Your task to perform on an android device: install app "Adobe Acrobat Reader: Edit PDF" Image 0: 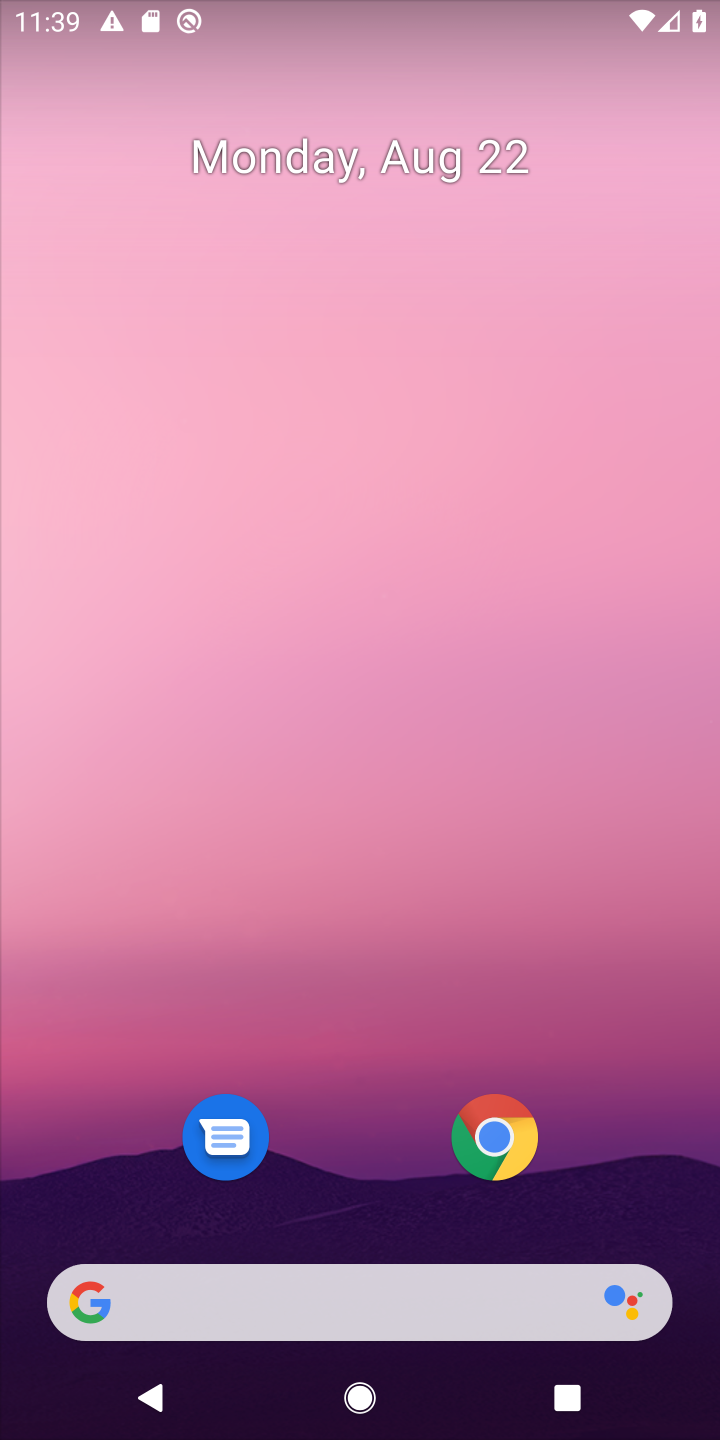
Step 0: drag from (302, 916) to (317, 65)
Your task to perform on an android device: install app "Adobe Acrobat Reader: Edit PDF" Image 1: 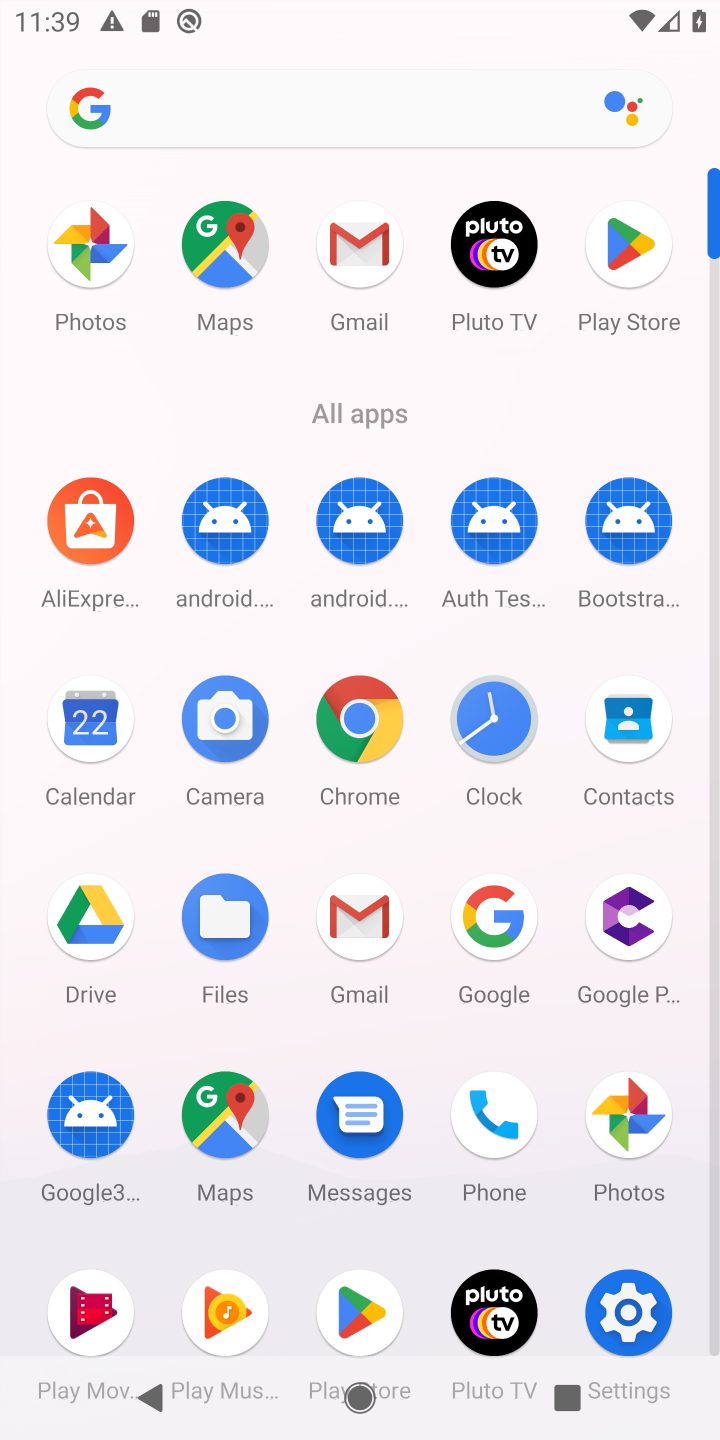
Step 1: click (612, 238)
Your task to perform on an android device: install app "Adobe Acrobat Reader: Edit PDF" Image 2: 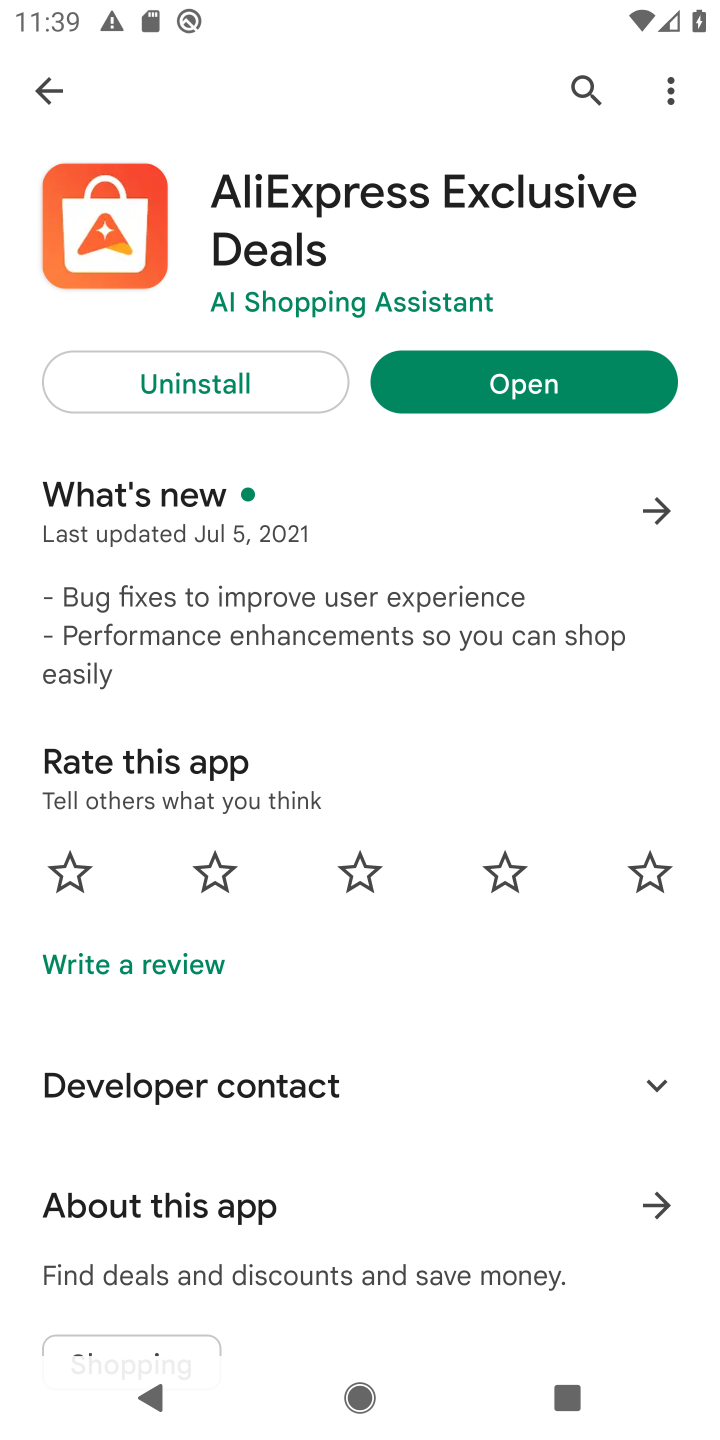
Step 2: click (44, 83)
Your task to perform on an android device: install app "Adobe Acrobat Reader: Edit PDF" Image 3: 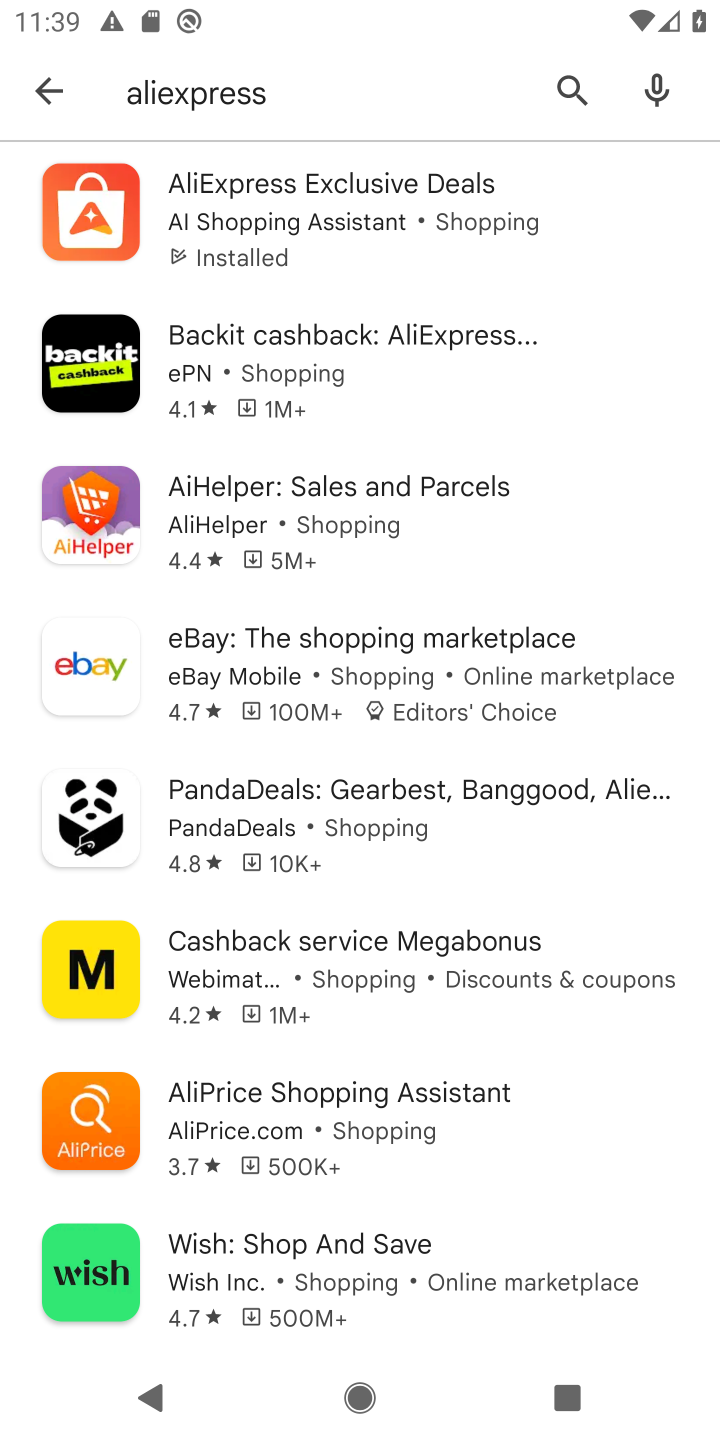
Step 3: click (35, 87)
Your task to perform on an android device: install app "Adobe Acrobat Reader: Edit PDF" Image 4: 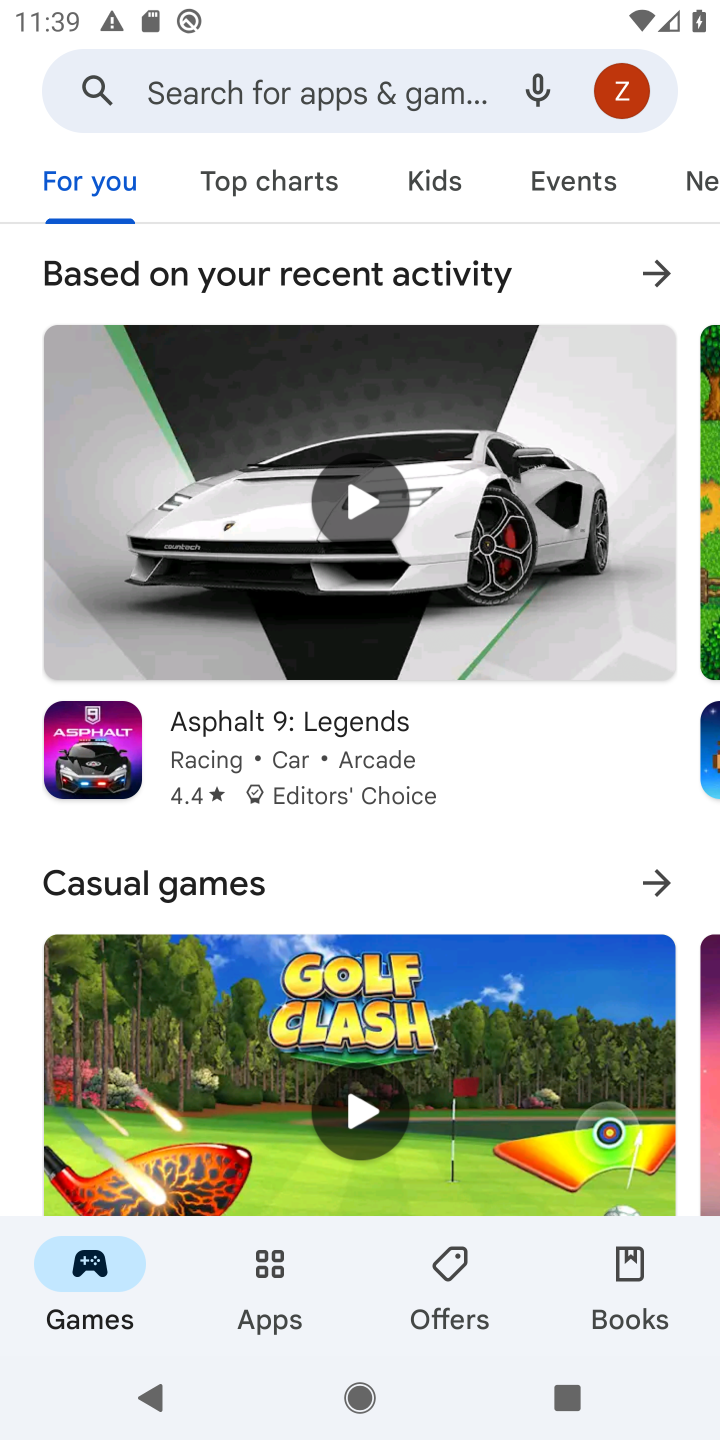
Step 4: click (243, 85)
Your task to perform on an android device: install app "Adobe Acrobat Reader: Edit PDF" Image 5: 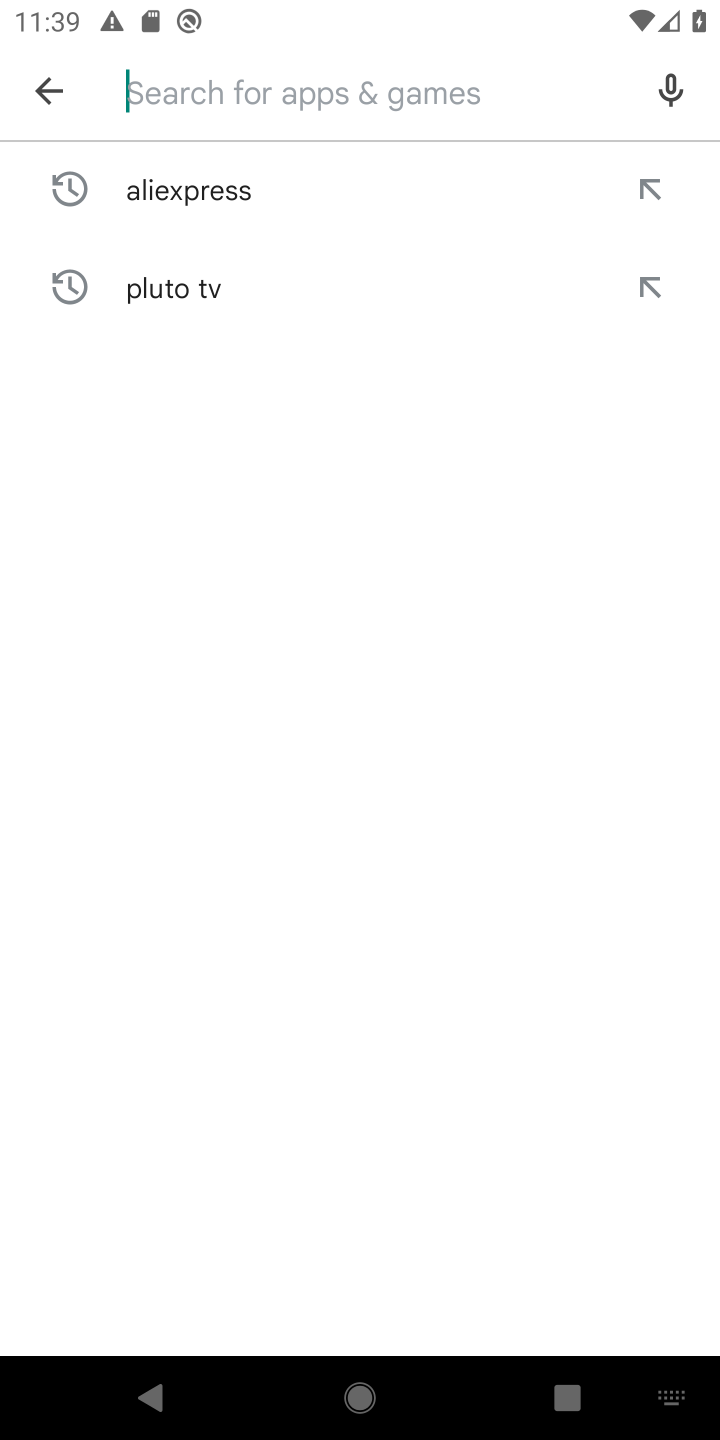
Step 5: type "Adobe Acrobat Reader: Edit PDF"
Your task to perform on an android device: install app "Adobe Acrobat Reader: Edit PDF" Image 6: 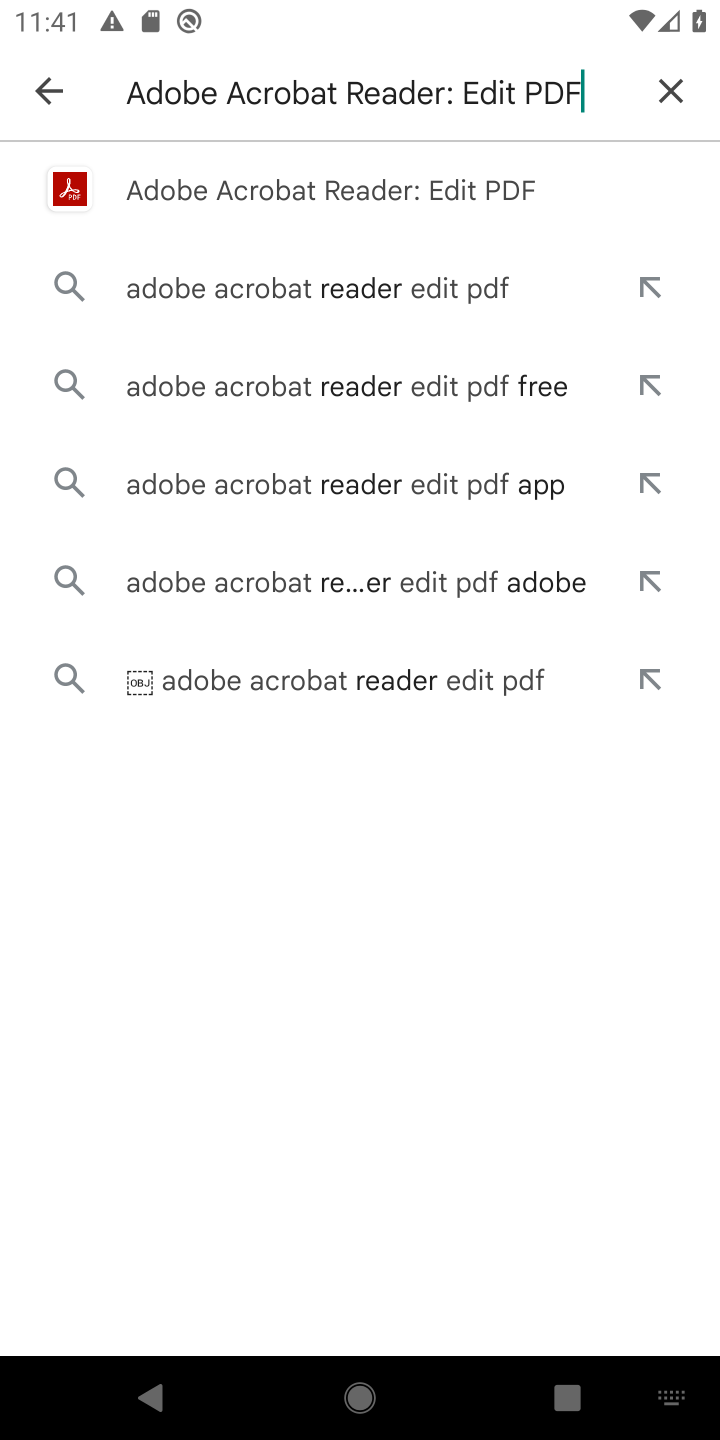
Step 6: click (415, 186)
Your task to perform on an android device: install app "Adobe Acrobat Reader: Edit PDF" Image 7: 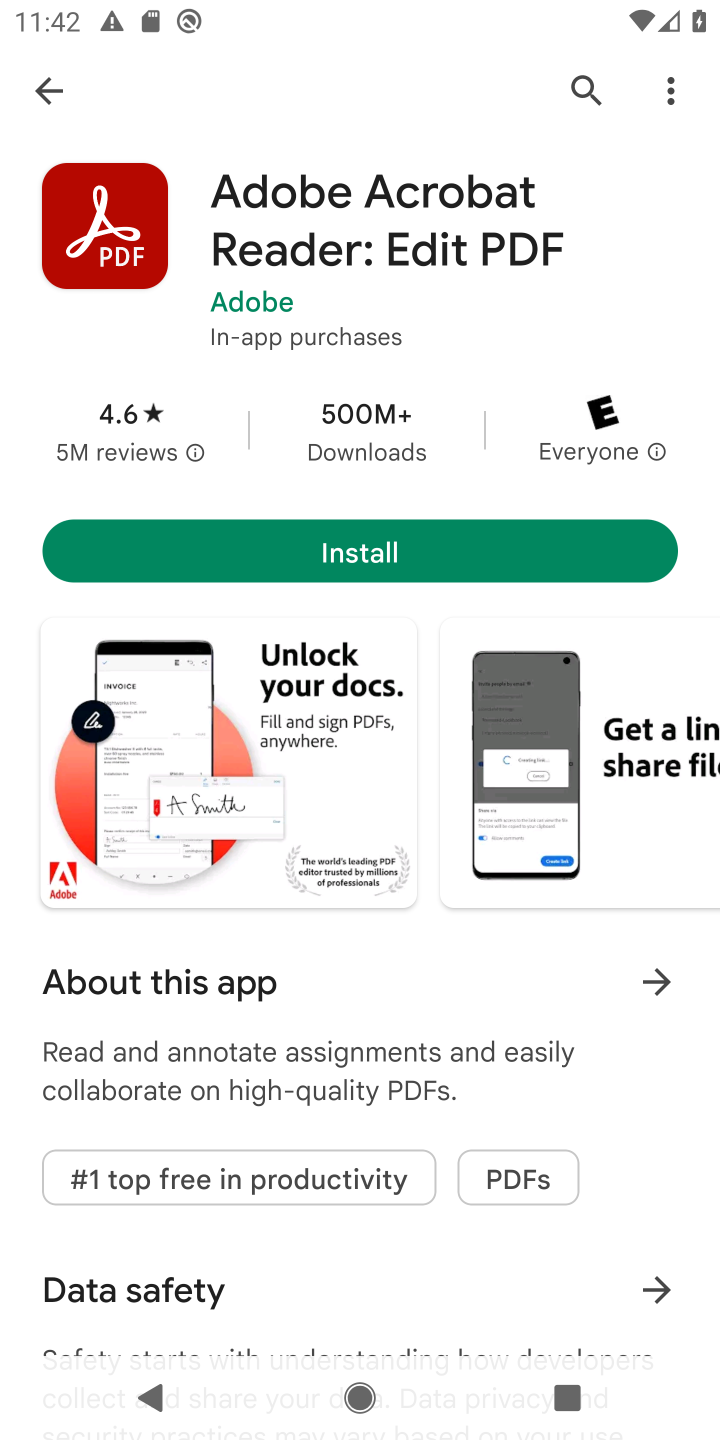
Step 7: click (349, 561)
Your task to perform on an android device: install app "Adobe Acrobat Reader: Edit PDF" Image 8: 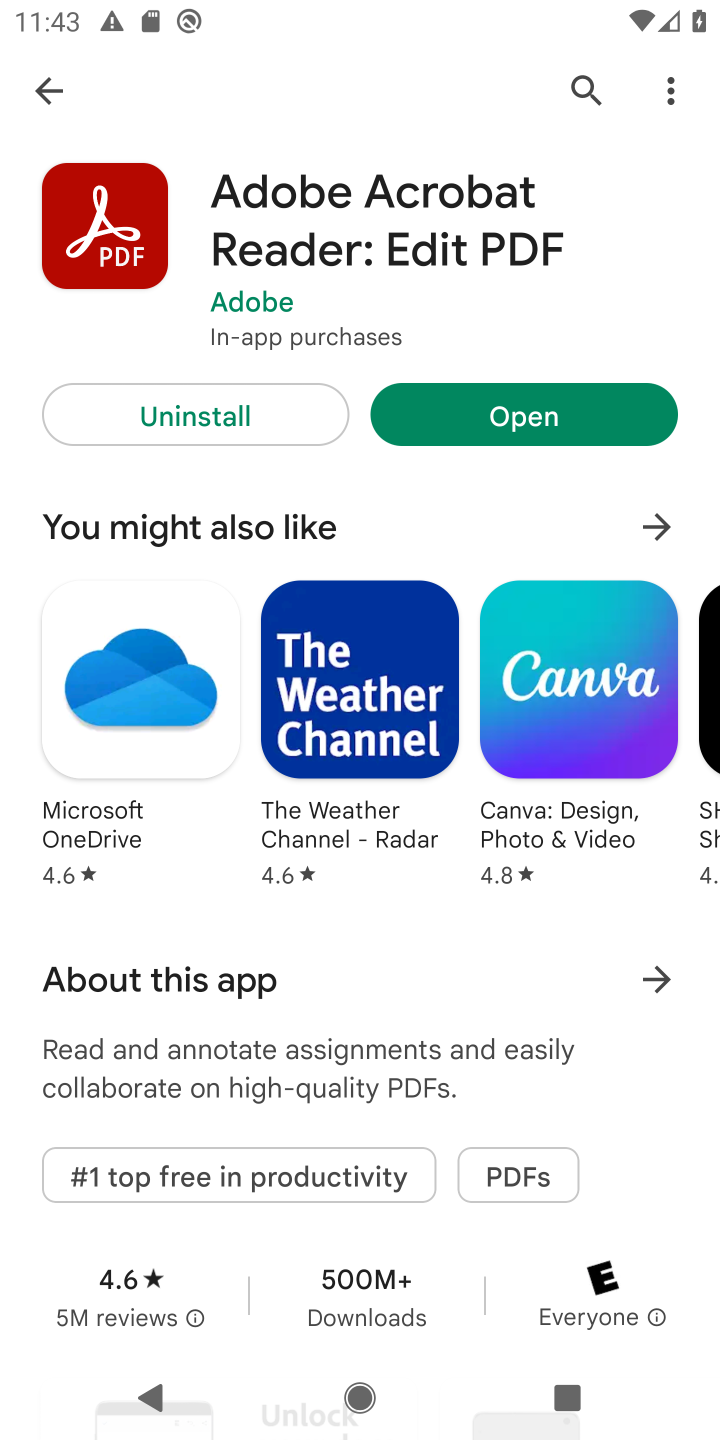
Step 8: click (495, 423)
Your task to perform on an android device: install app "Adobe Acrobat Reader: Edit PDF" Image 9: 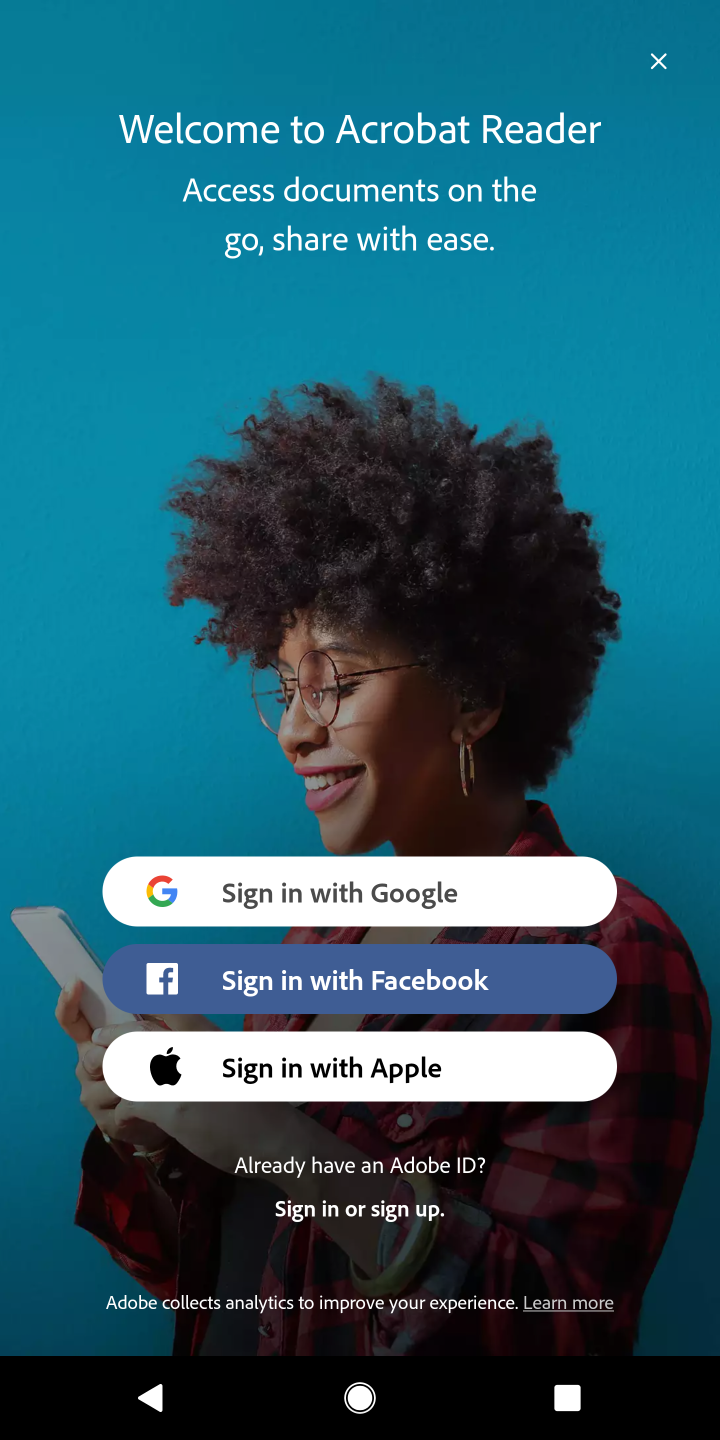
Step 9: task complete